Your task to perform on an android device: What's the weather going to be this weekend? Image 0: 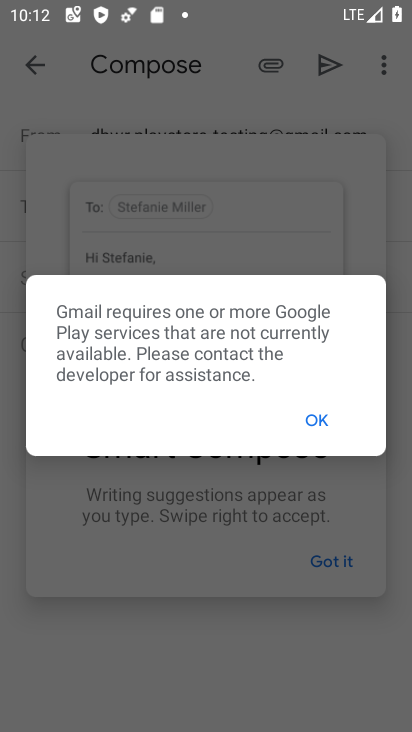
Step 0: press home button
Your task to perform on an android device: What's the weather going to be this weekend? Image 1: 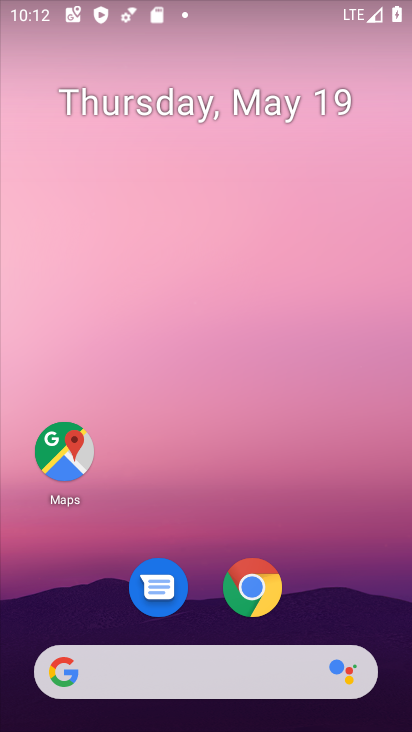
Step 1: click (139, 669)
Your task to perform on an android device: What's the weather going to be this weekend? Image 2: 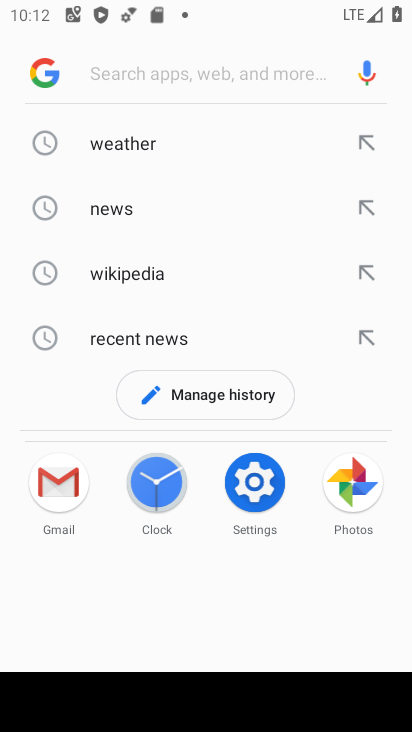
Step 2: click (246, 143)
Your task to perform on an android device: What's the weather going to be this weekend? Image 3: 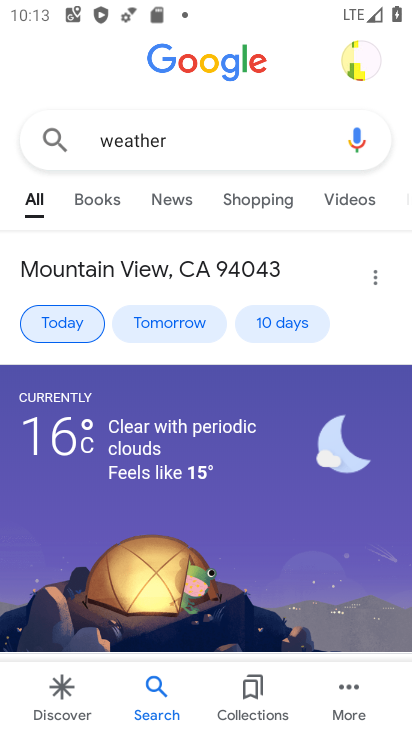
Step 3: click (275, 316)
Your task to perform on an android device: What's the weather going to be this weekend? Image 4: 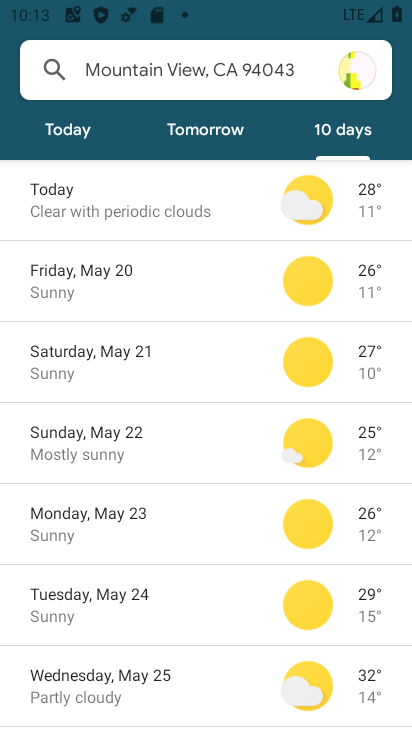
Step 4: task complete